Your task to perform on an android device: toggle pop-ups in chrome Image 0: 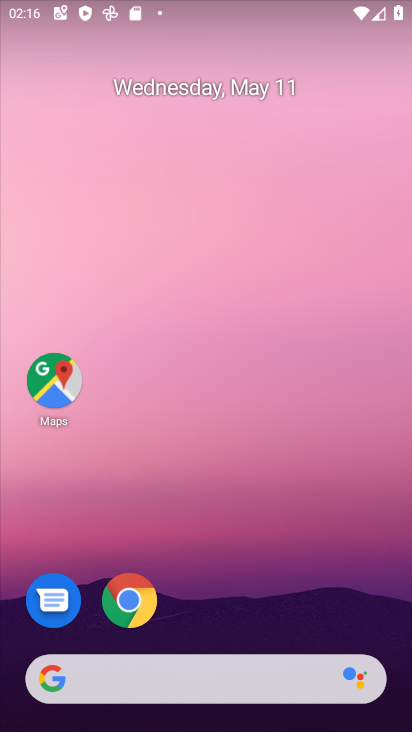
Step 0: click (145, 572)
Your task to perform on an android device: toggle pop-ups in chrome Image 1: 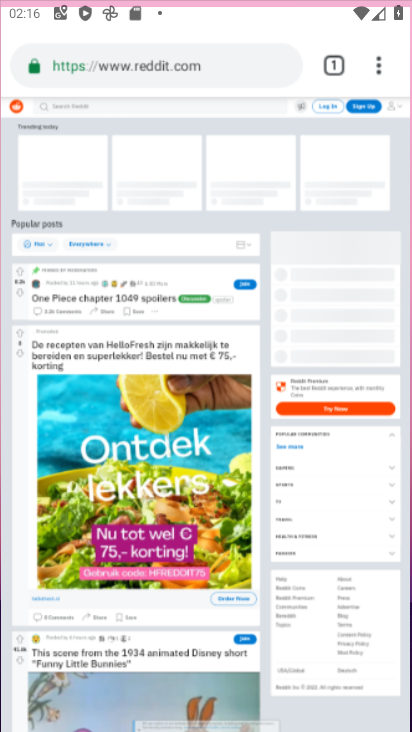
Step 1: click (116, 609)
Your task to perform on an android device: toggle pop-ups in chrome Image 2: 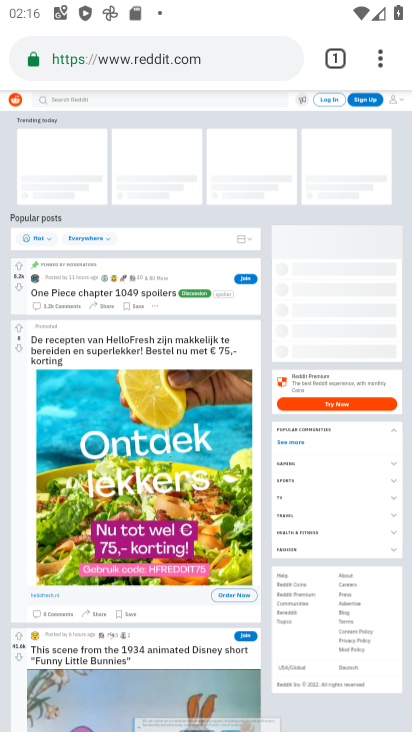
Step 2: drag from (381, 69) to (230, 286)
Your task to perform on an android device: toggle pop-ups in chrome Image 3: 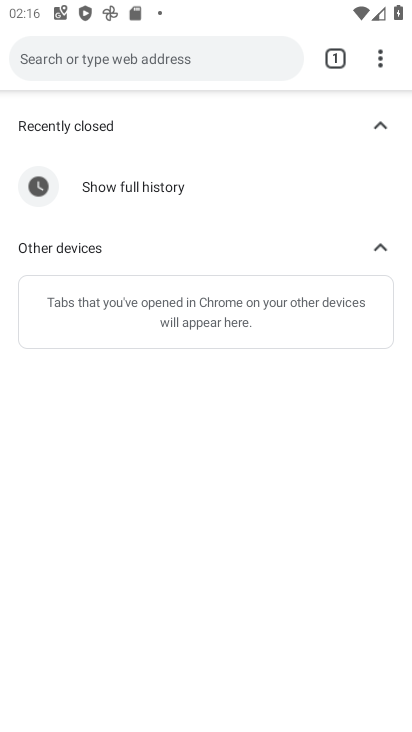
Step 3: click (375, 61)
Your task to perform on an android device: toggle pop-ups in chrome Image 4: 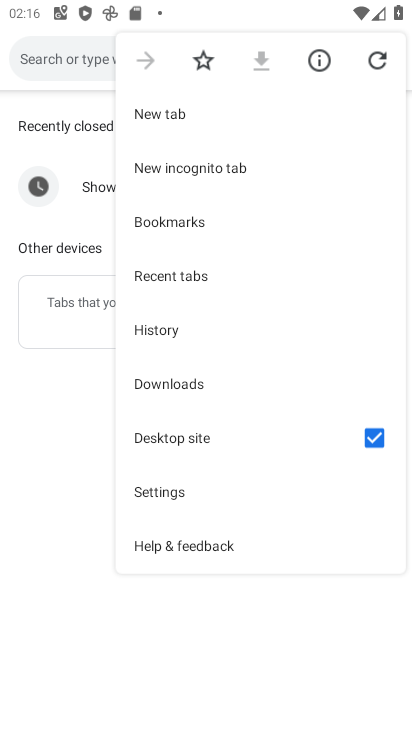
Step 4: click (177, 492)
Your task to perform on an android device: toggle pop-ups in chrome Image 5: 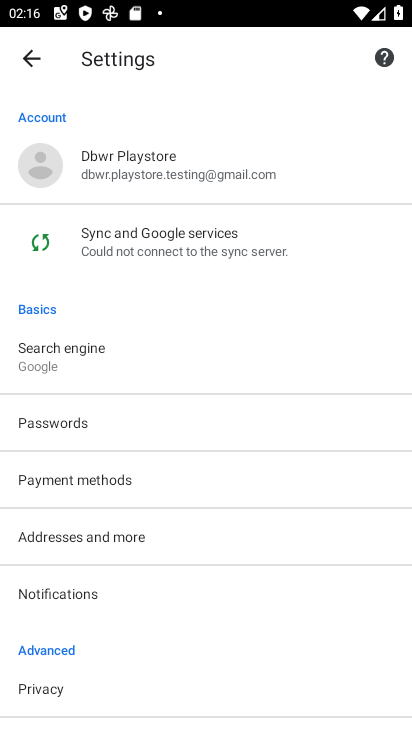
Step 5: drag from (167, 673) to (231, 183)
Your task to perform on an android device: toggle pop-ups in chrome Image 6: 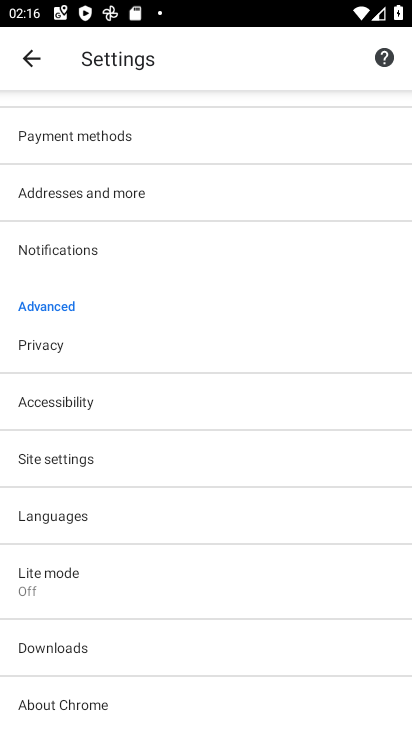
Step 6: click (117, 460)
Your task to perform on an android device: toggle pop-ups in chrome Image 7: 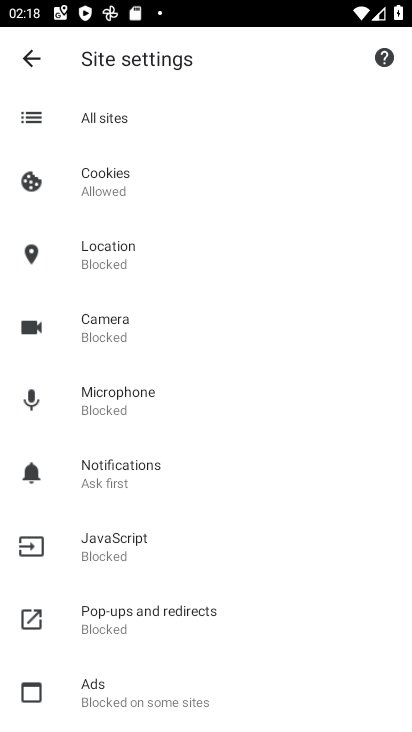
Step 7: click (159, 616)
Your task to perform on an android device: toggle pop-ups in chrome Image 8: 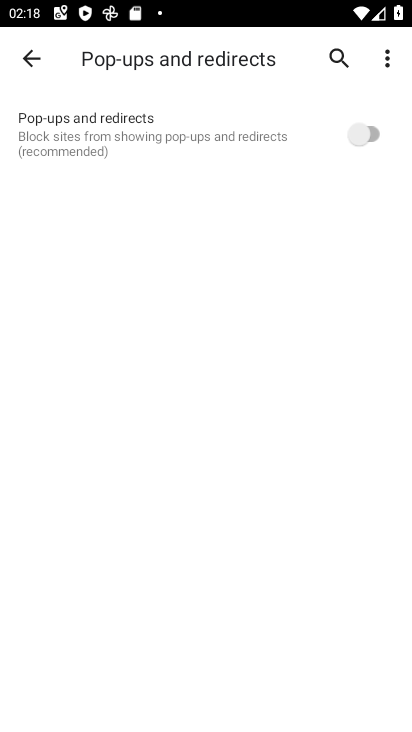
Step 8: click (366, 138)
Your task to perform on an android device: toggle pop-ups in chrome Image 9: 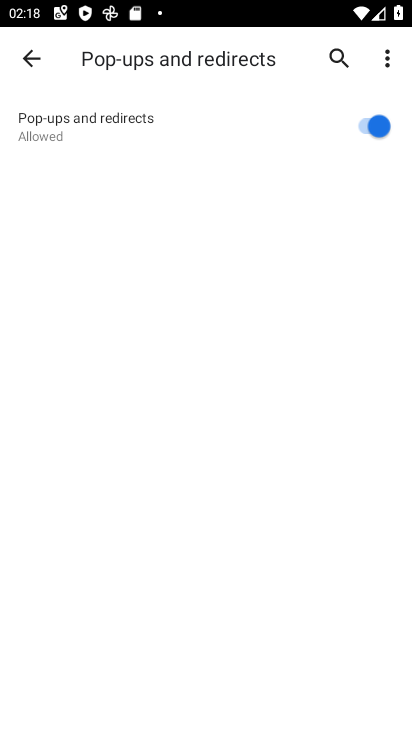
Step 9: task complete